Your task to perform on an android device: Search for the best rated coffee table on Target. Image 0: 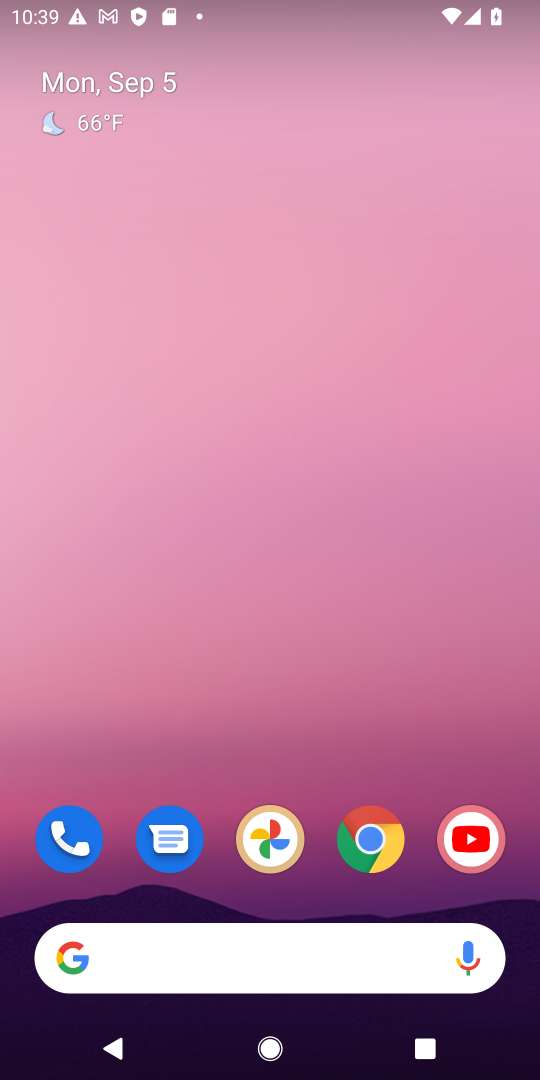
Step 0: drag from (232, 925) to (325, 438)
Your task to perform on an android device: Search for the best rated coffee table on Target. Image 1: 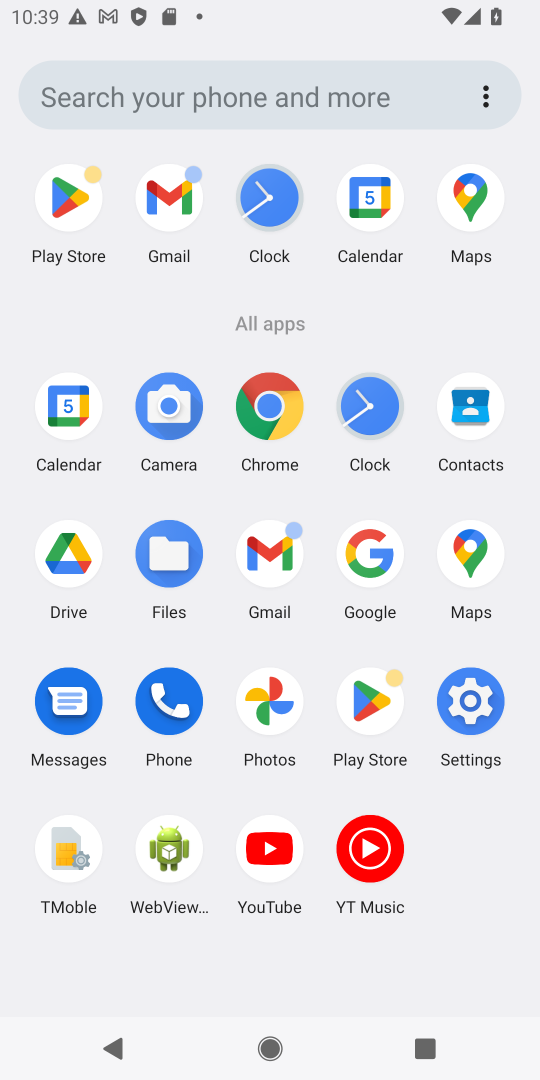
Step 1: click (363, 549)
Your task to perform on an android device: Search for the best rated coffee table on Target. Image 2: 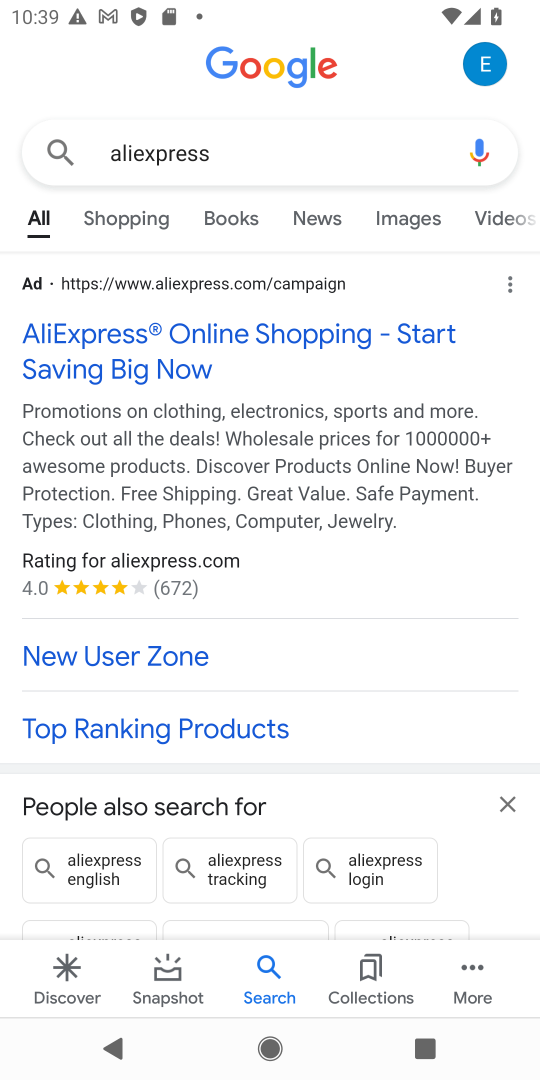
Step 2: click (210, 162)
Your task to perform on an android device: Search for the best rated coffee table on Target. Image 3: 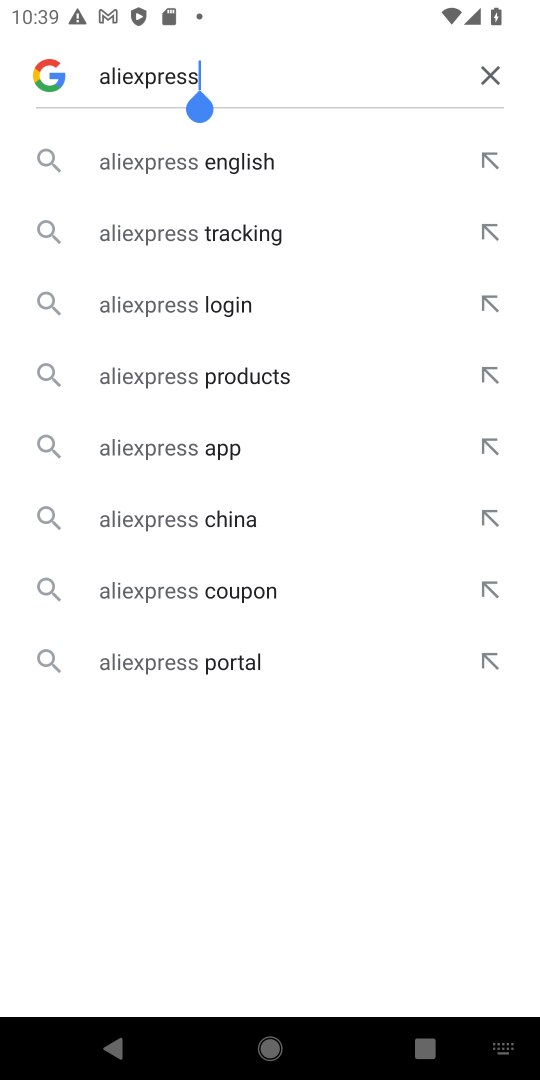
Step 3: click (492, 78)
Your task to perform on an android device: Search for the best rated coffee table on Target. Image 4: 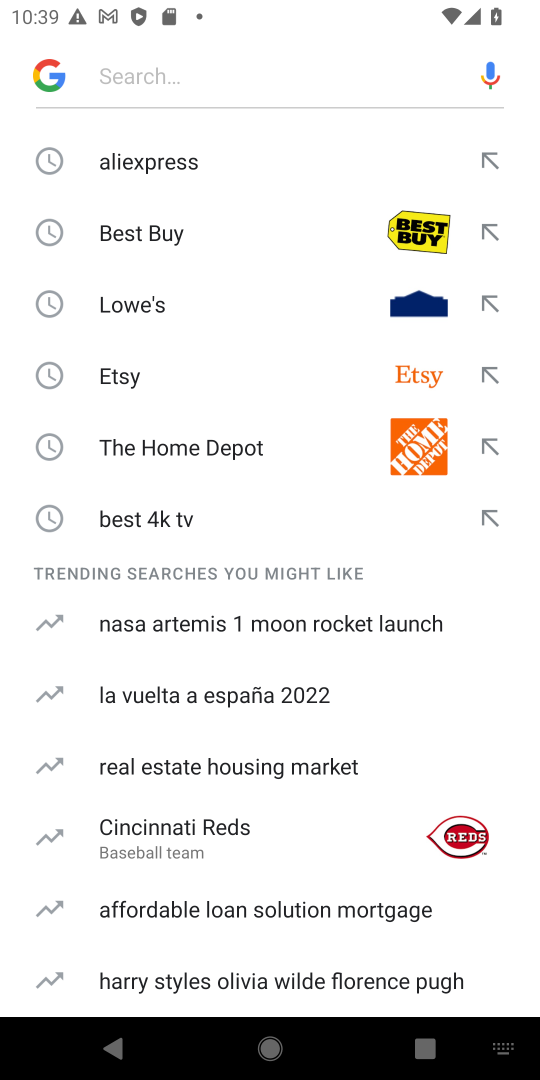
Step 4: type "Target"
Your task to perform on an android device: Search for the best rated coffee table on Target. Image 5: 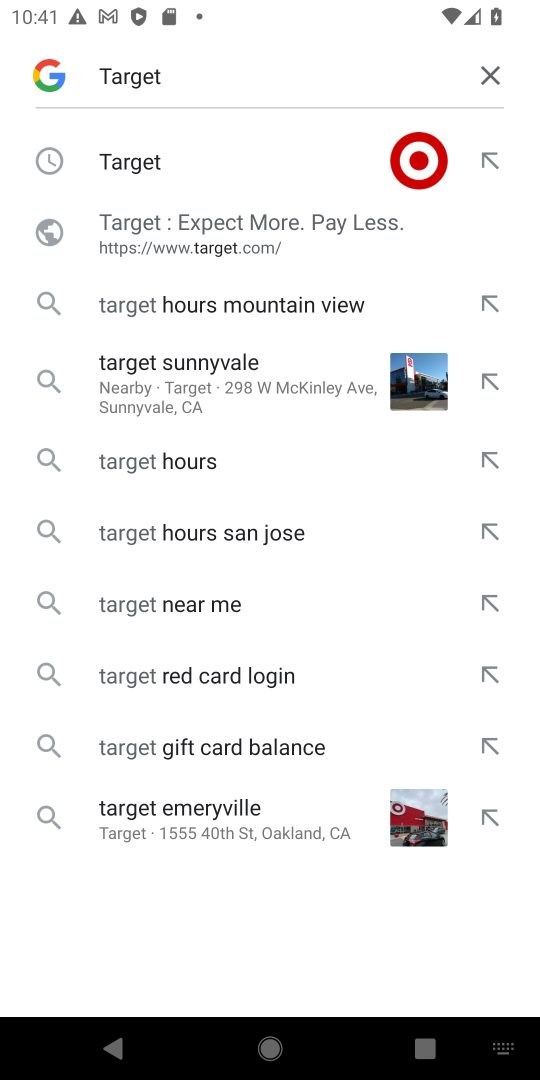
Step 5: click (127, 158)
Your task to perform on an android device: Search for the best rated coffee table on Target. Image 6: 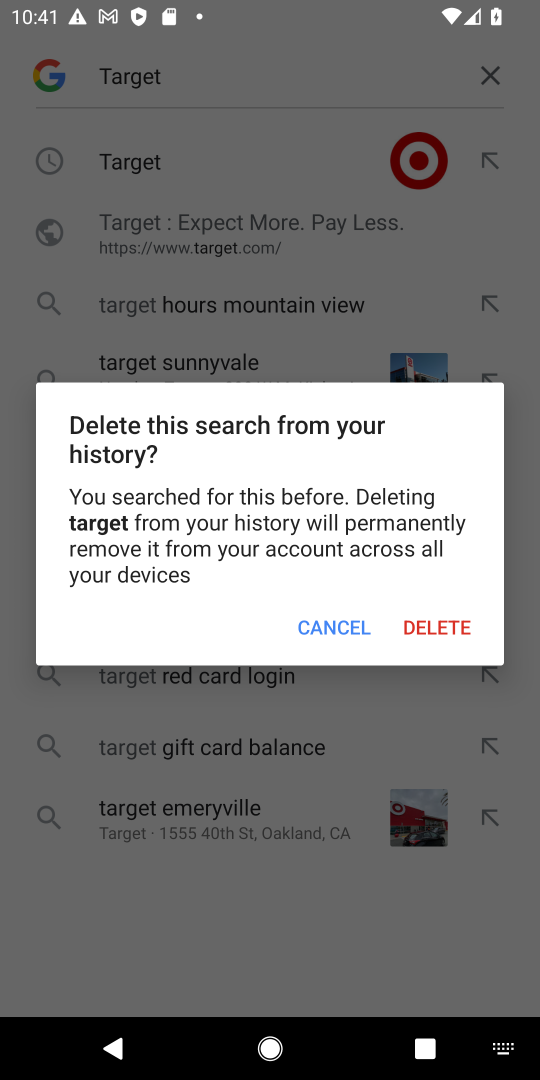
Step 6: click (362, 625)
Your task to perform on an android device: Search for the best rated coffee table on Target. Image 7: 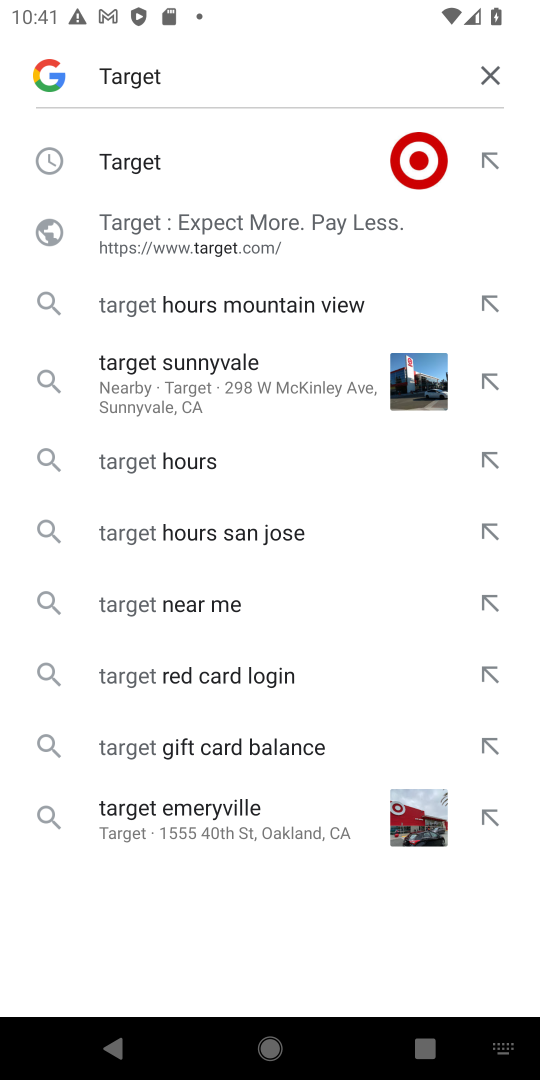
Step 7: click (486, 155)
Your task to perform on an android device: Search for the best rated coffee table on Target. Image 8: 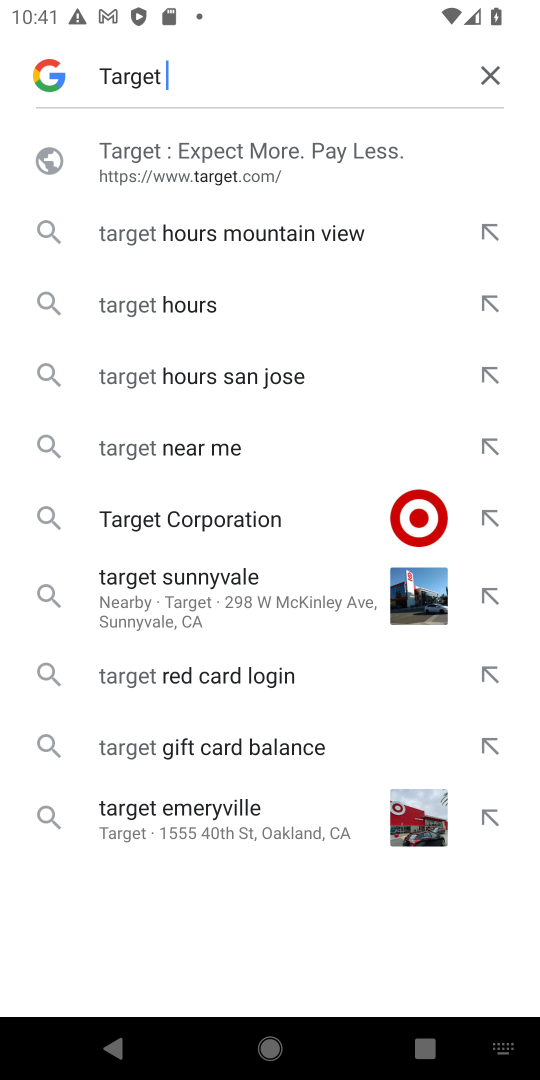
Step 8: click (292, 160)
Your task to perform on an android device: Search for the best rated coffee table on Target. Image 9: 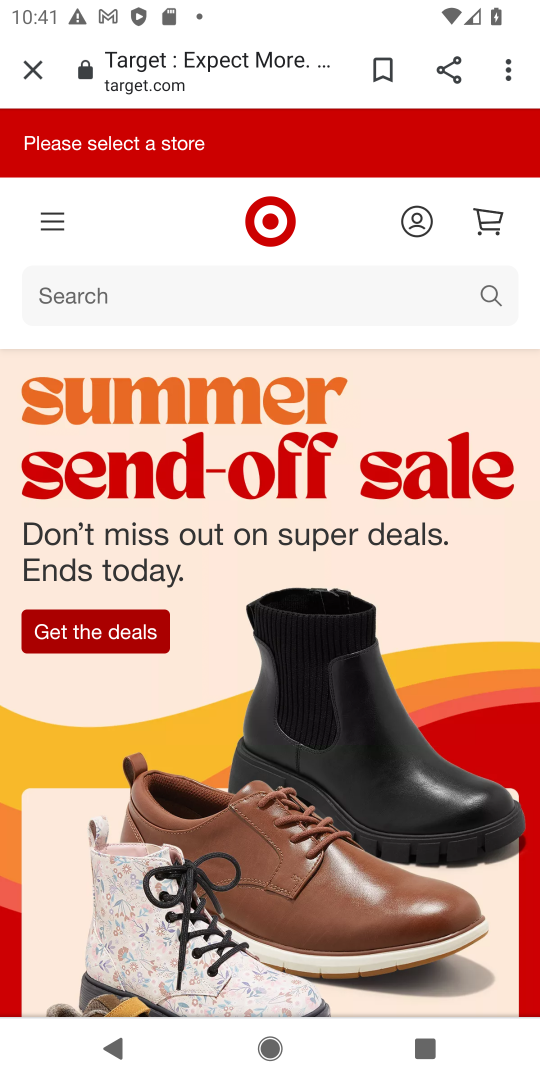
Step 9: click (483, 297)
Your task to perform on an android device: Search for the best rated coffee table on Target. Image 10: 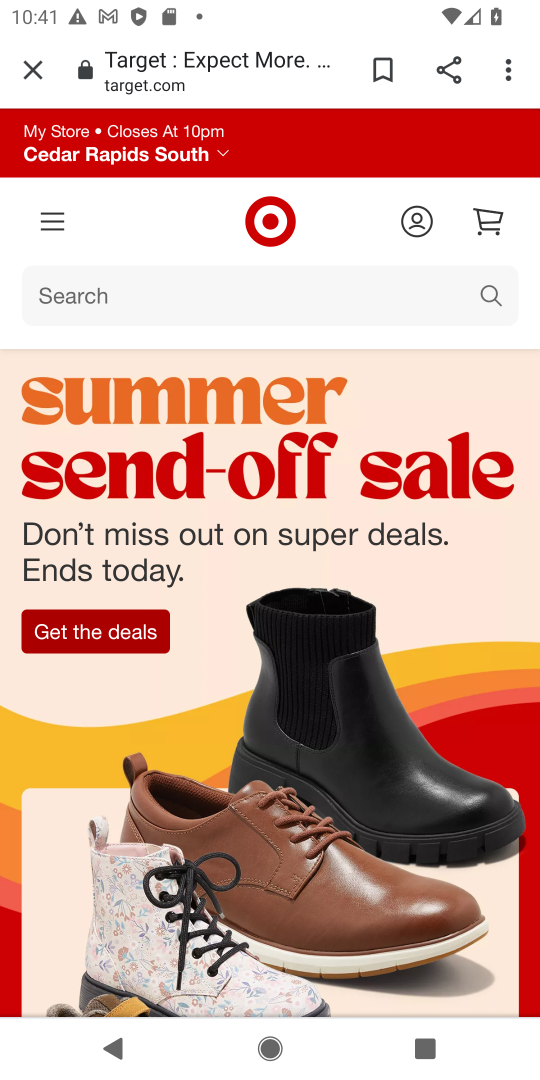
Step 10: click (485, 298)
Your task to perform on an android device: Search for the best rated coffee table on Target. Image 11: 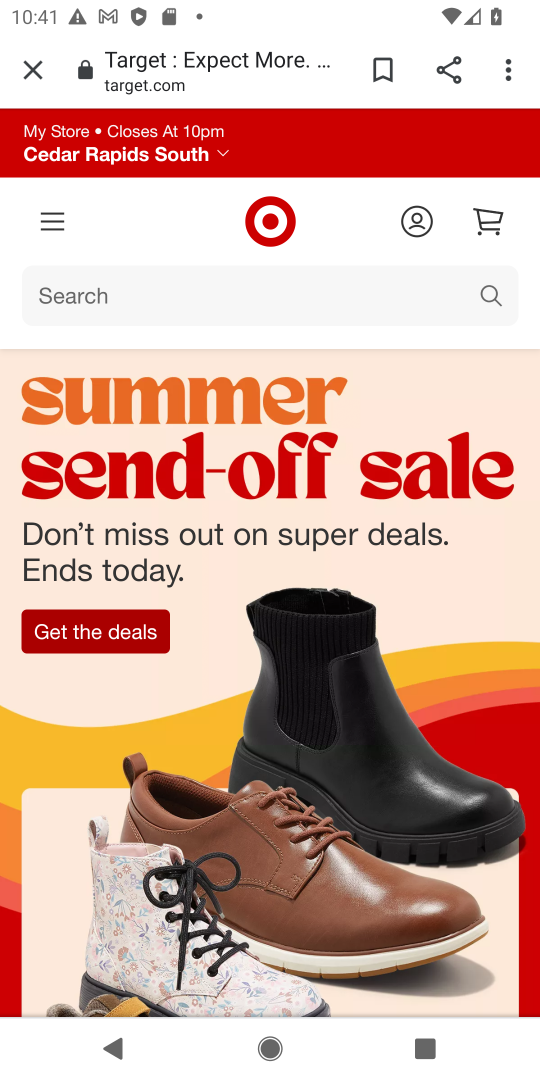
Step 11: click (165, 305)
Your task to perform on an android device: Search for the best rated coffee table on Target. Image 12: 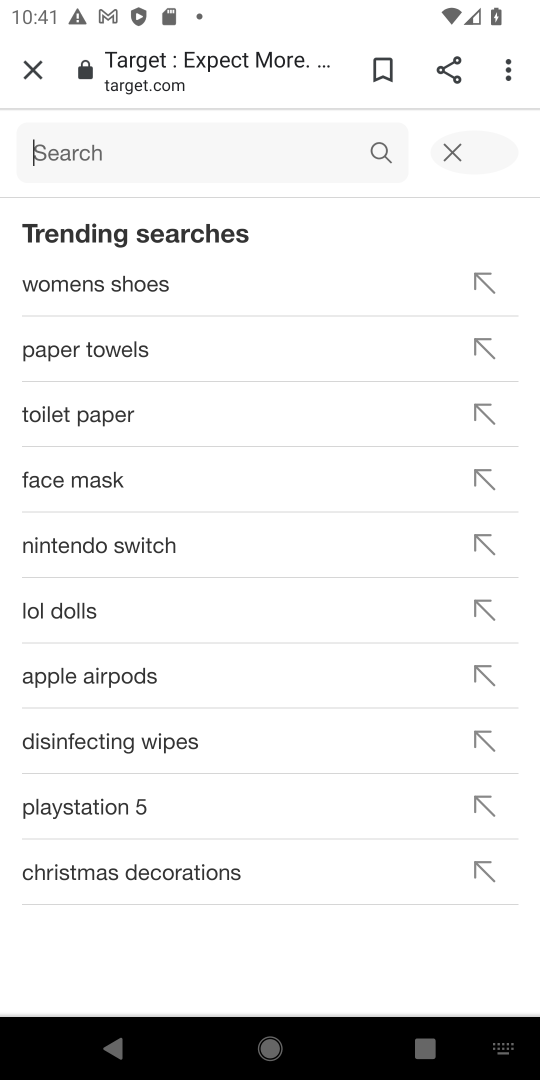
Step 12: type "best rated coffee table"
Your task to perform on an android device: Search for the best rated coffee table on Target. Image 13: 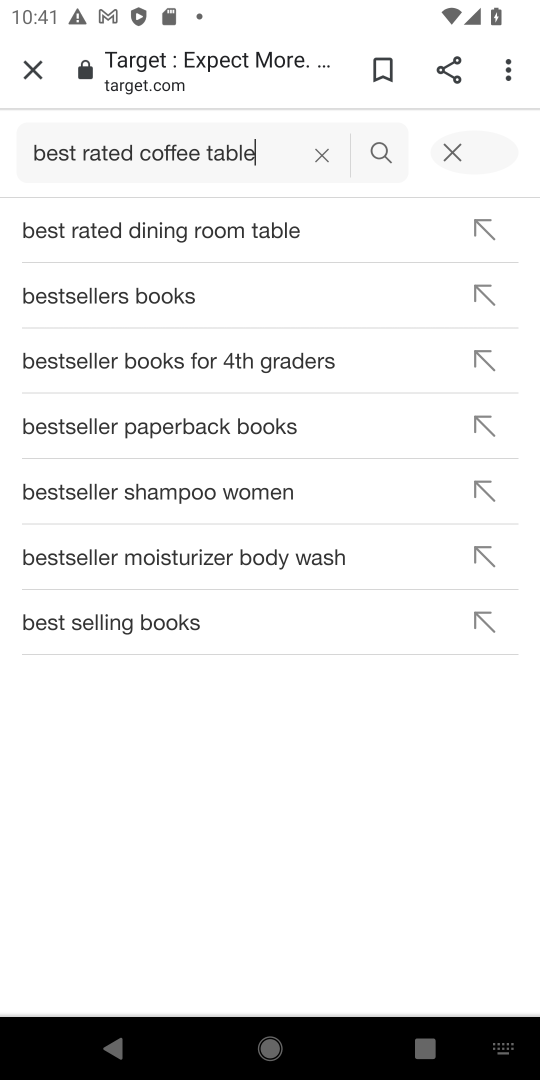
Step 13: click (148, 226)
Your task to perform on an android device: Search for the best rated coffee table on Target. Image 14: 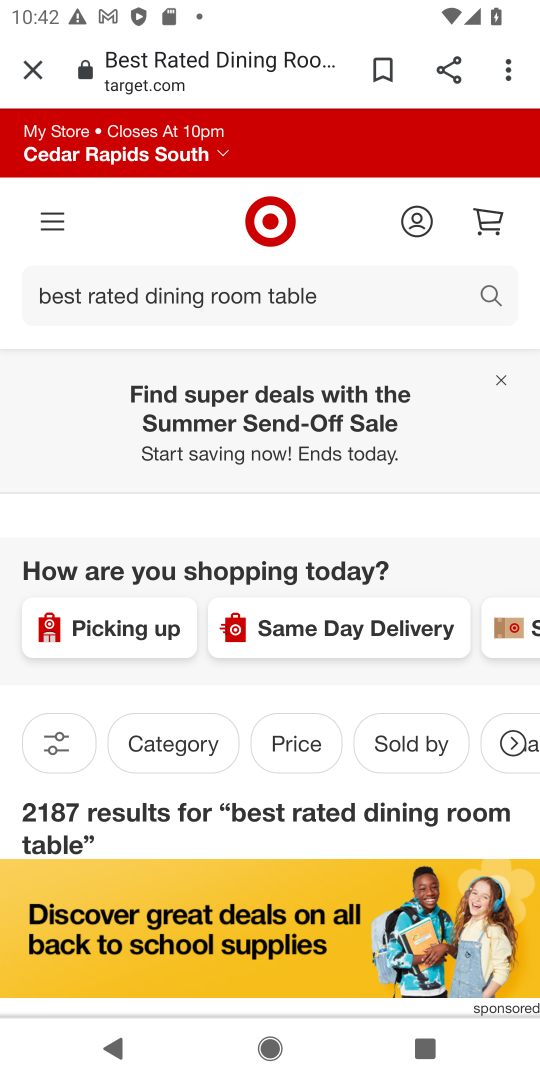
Step 14: click (374, 192)
Your task to perform on an android device: Search for the best rated coffee table on Target. Image 15: 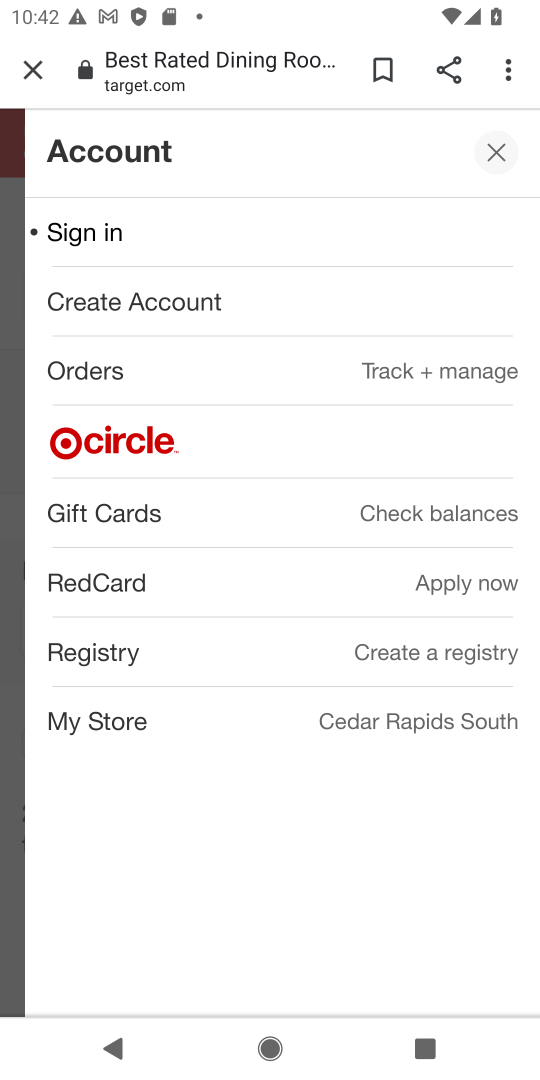
Step 15: click (11, 324)
Your task to perform on an android device: Search for the best rated coffee table on Target. Image 16: 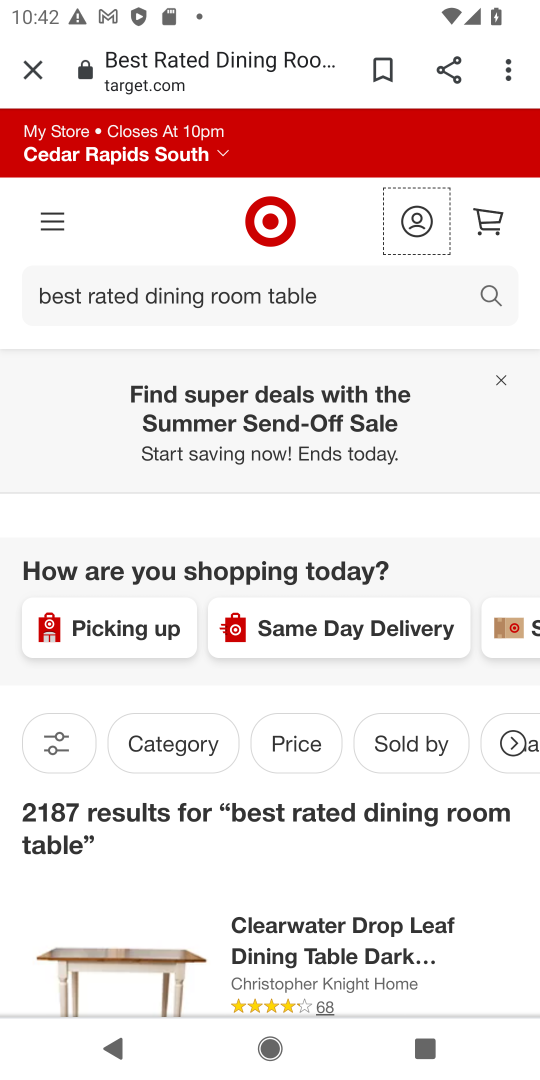
Step 16: task complete